Your task to perform on an android device: open a new tab in the chrome app Image 0: 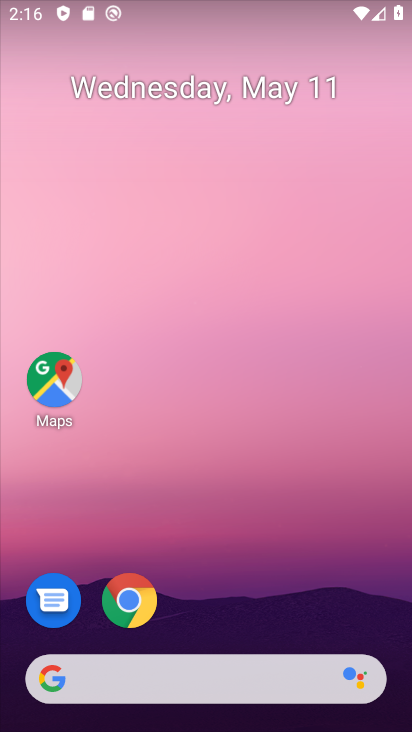
Step 0: click (134, 622)
Your task to perform on an android device: open a new tab in the chrome app Image 1: 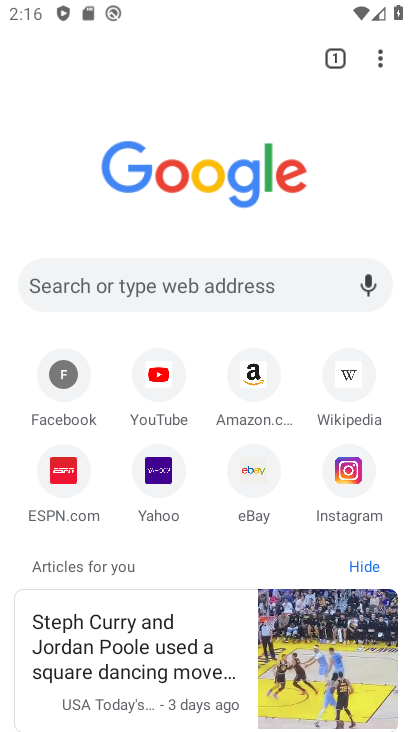
Step 1: drag from (202, 36) to (195, 112)
Your task to perform on an android device: open a new tab in the chrome app Image 2: 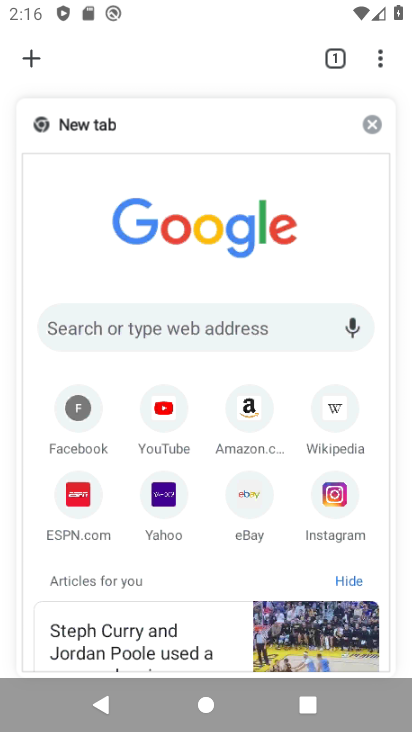
Step 2: click (35, 54)
Your task to perform on an android device: open a new tab in the chrome app Image 3: 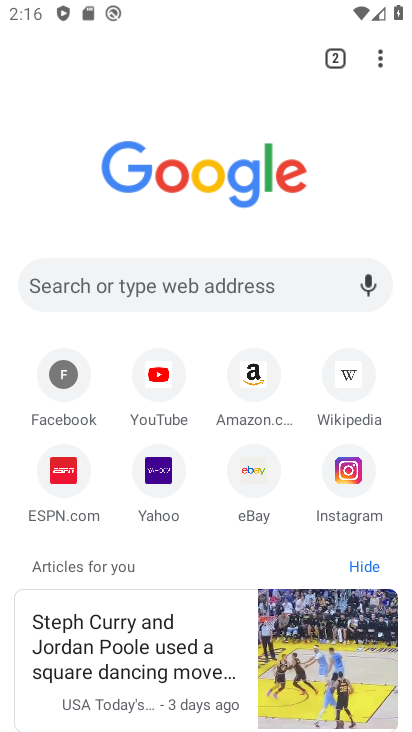
Step 3: task complete